Your task to perform on an android device: open app "LiveIn - Share Your Moment" Image 0: 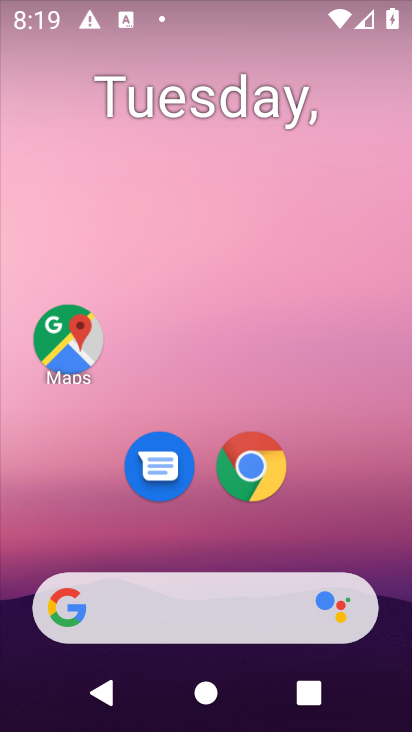
Step 0: drag from (184, 564) to (309, 15)
Your task to perform on an android device: open app "LiveIn - Share Your Moment" Image 1: 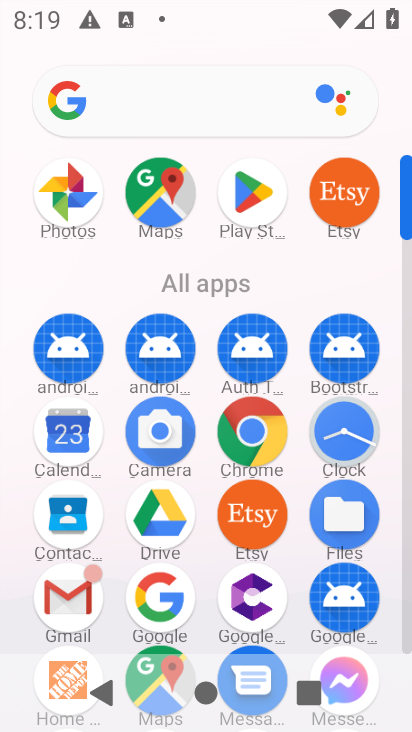
Step 1: click (242, 198)
Your task to perform on an android device: open app "LiveIn - Share Your Moment" Image 2: 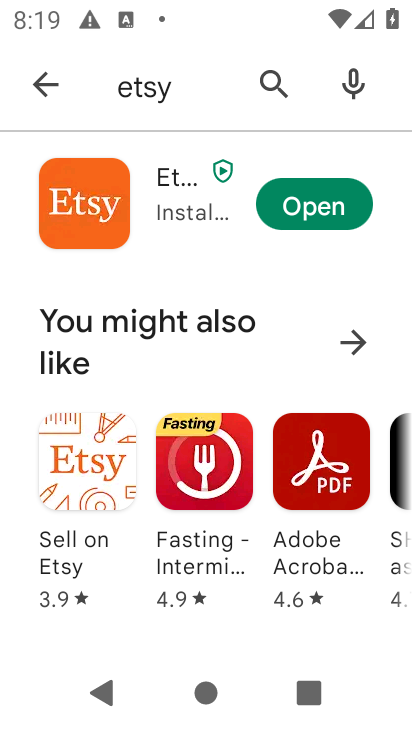
Step 2: click (281, 76)
Your task to perform on an android device: open app "LiveIn - Share Your Moment" Image 3: 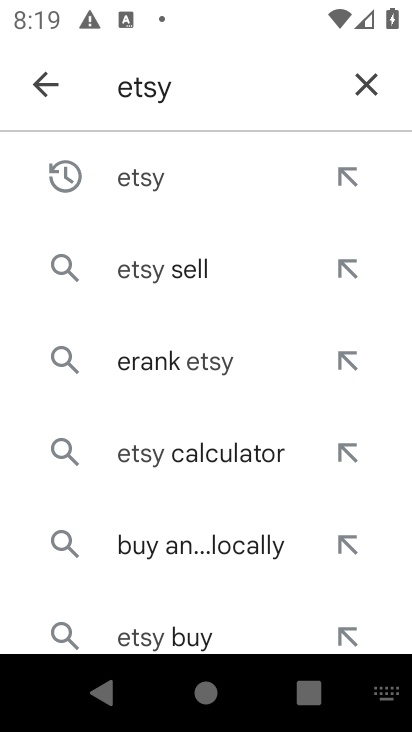
Step 3: click (372, 70)
Your task to perform on an android device: open app "LiveIn - Share Your Moment" Image 4: 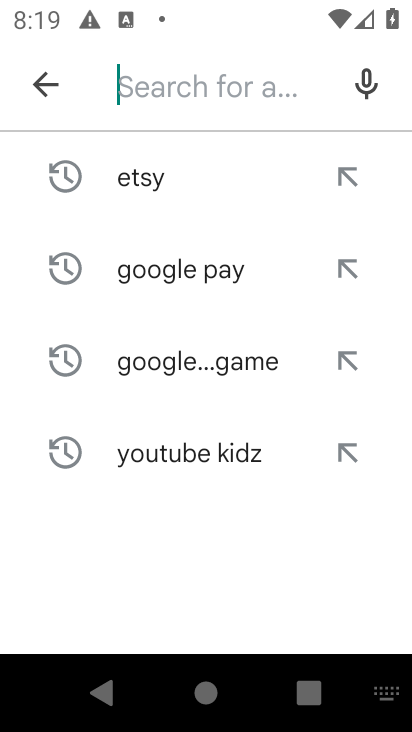
Step 4: click (200, 86)
Your task to perform on an android device: open app "LiveIn - Share Your Moment" Image 5: 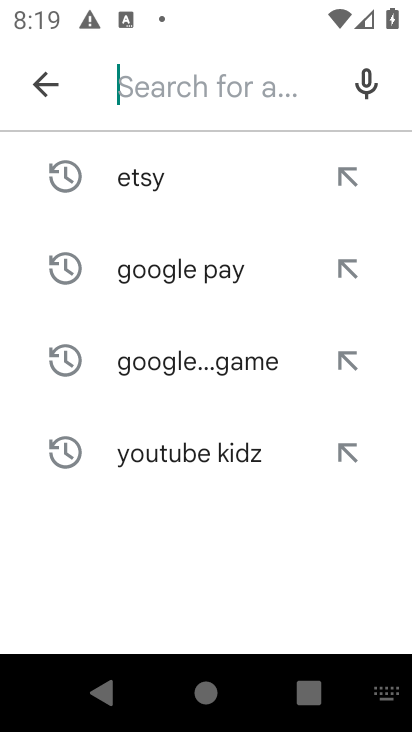
Step 5: type "LiveIn"
Your task to perform on an android device: open app "LiveIn - Share Your Moment" Image 6: 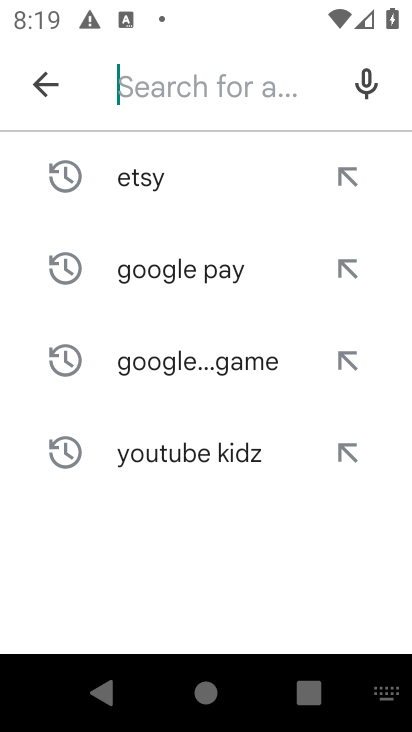
Step 6: click (153, 549)
Your task to perform on an android device: open app "LiveIn - Share Your Moment" Image 7: 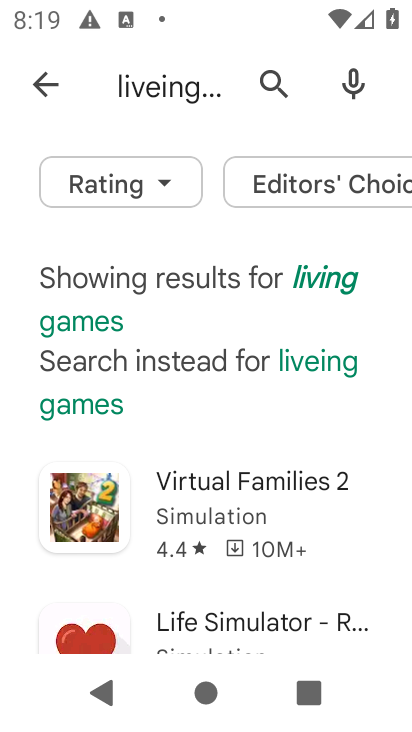
Step 7: click (272, 70)
Your task to perform on an android device: open app "LiveIn - Share Your Moment" Image 8: 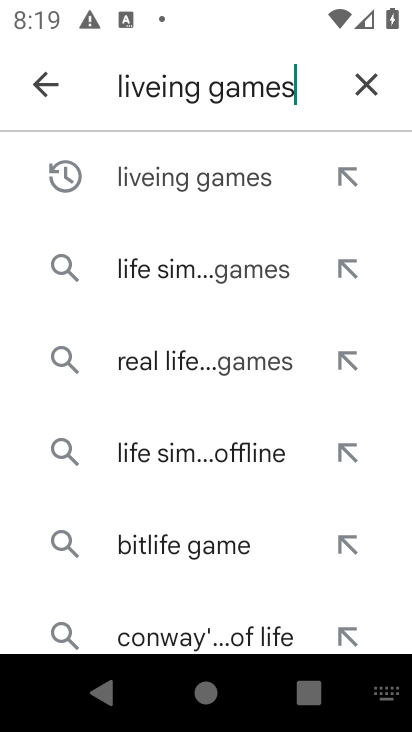
Step 8: click (365, 68)
Your task to perform on an android device: open app "LiveIn - Share Your Moment" Image 9: 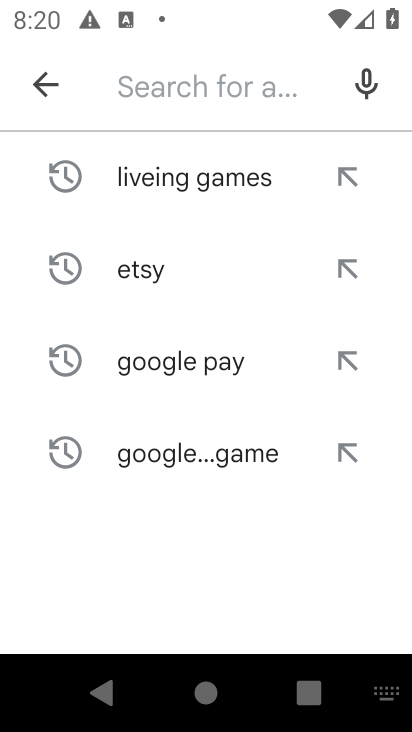
Step 9: type "liveln"
Your task to perform on an android device: open app "LiveIn - Share Your Moment" Image 10: 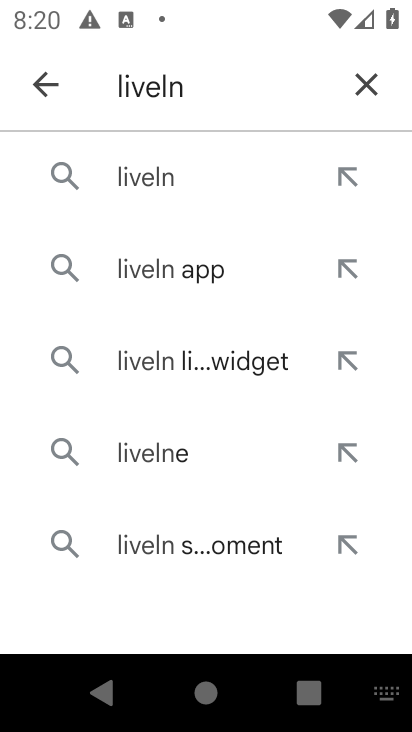
Step 10: click (168, 170)
Your task to perform on an android device: open app "LiveIn - Share Your Moment" Image 11: 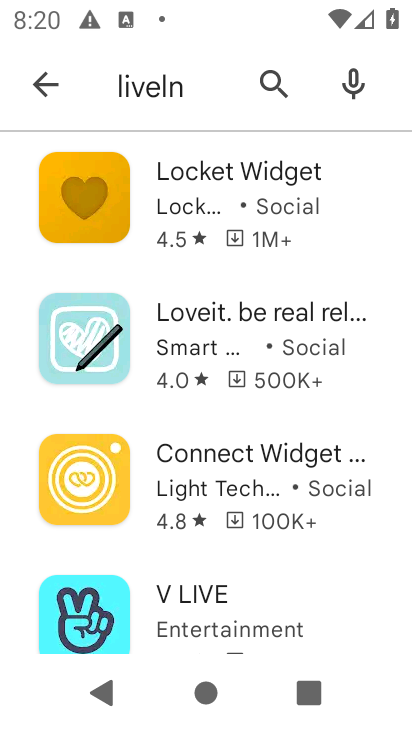
Step 11: task complete